Your task to perform on an android device: Search for Italian restaurants on Maps Image 0: 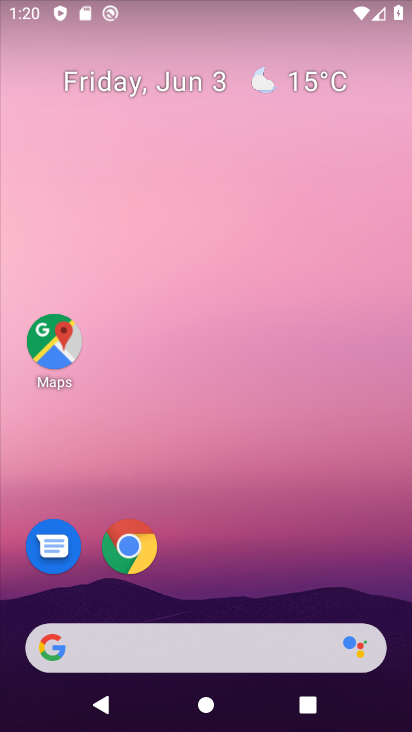
Step 0: drag from (329, 533) to (0, 103)
Your task to perform on an android device: Search for Italian restaurants on Maps Image 1: 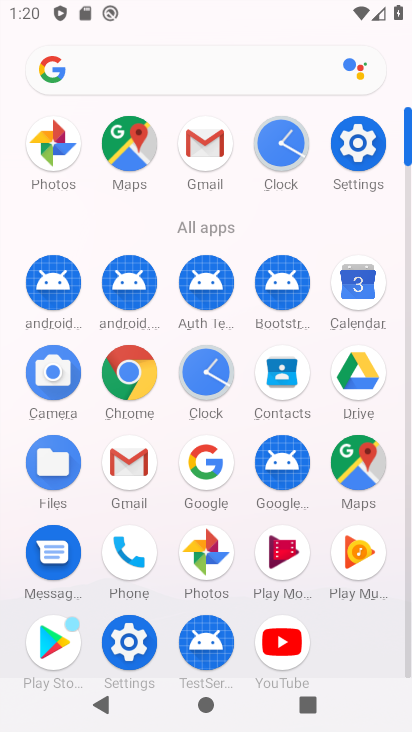
Step 1: click (349, 479)
Your task to perform on an android device: Search for Italian restaurants on Maps Image 2: 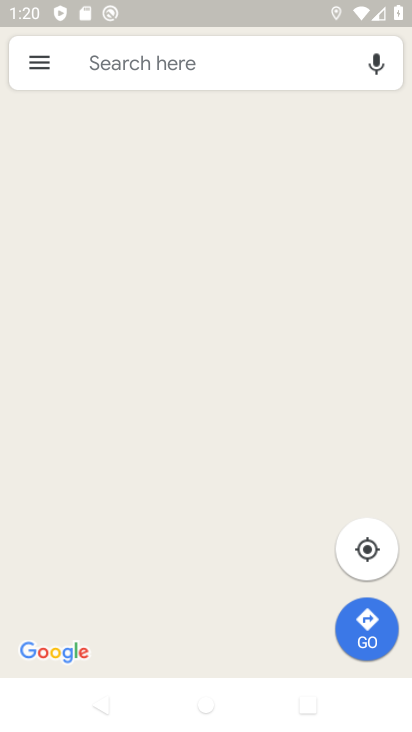
Step 2: click (258, 59)
Your task to perform on an android device: Search for Italian restaurants on Maps Image 3: 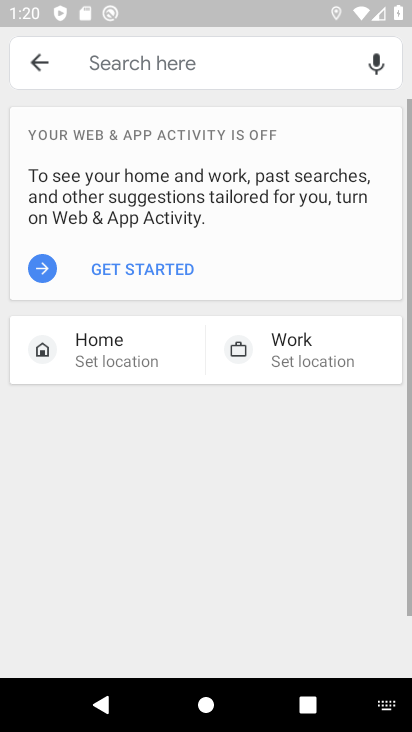
Step 3: type "italian "
Your task to perform on an android device: Search for Italian restaurants on Maps Image 4: 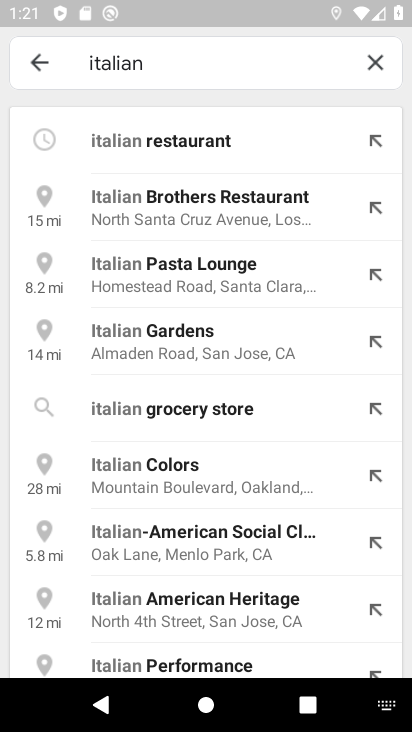
Step 4: click (134, 146)
Your task to perform on an android device: Search for Italian restaurants on Maps Image 5: 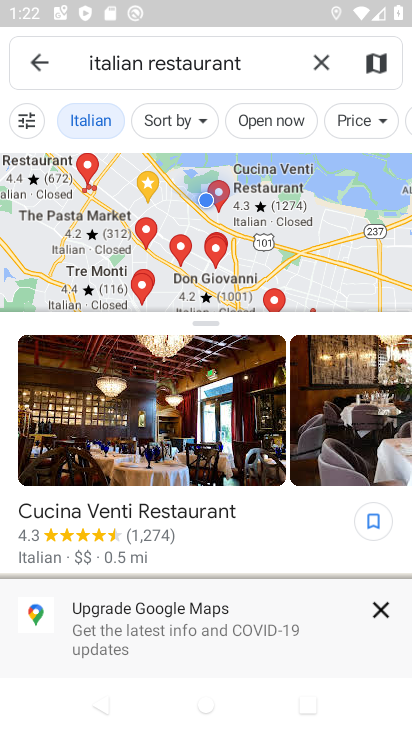
Step 5: task complete